Your task to perform on an android device: Open the map Image 0: 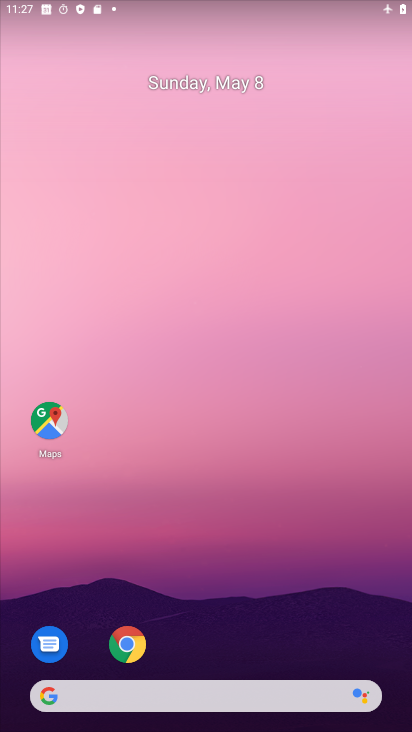
Step 0: drag from (182, 646) to (310, 109)
Your task to perform on an android device: Open the map Image 1: 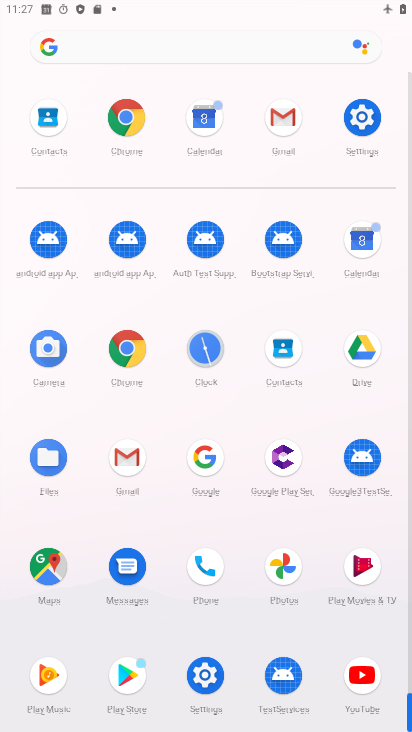
Step 1: click (46, 569)
Your task to perform on an android device: Open the map Image 2: 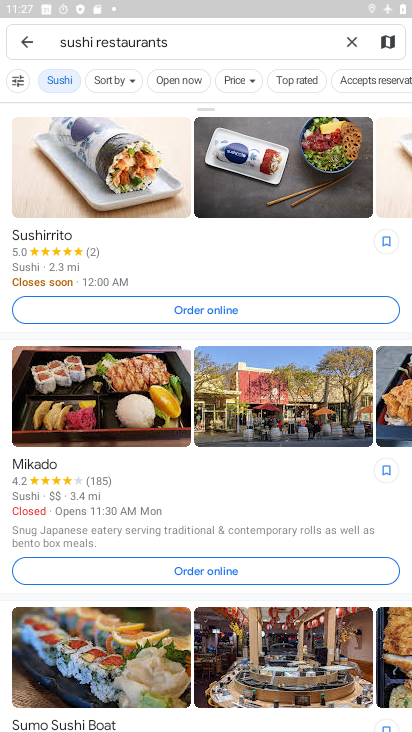
Step 2: task complete